Your task to perform on an android device: show emergency info Image 0: 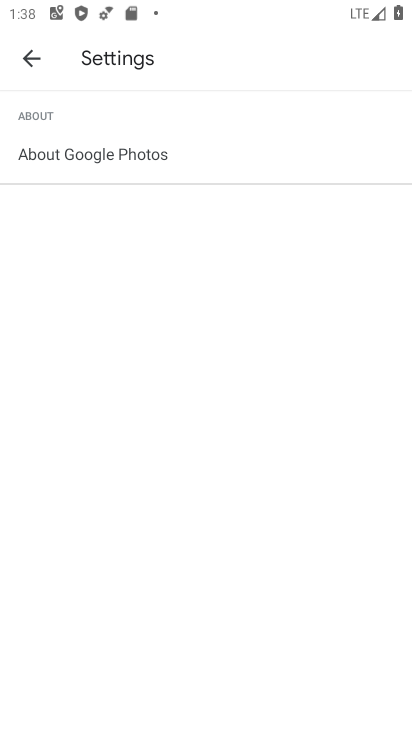
Step 0: press home button
Your task to perform on an android device: show emergency info Image 1: 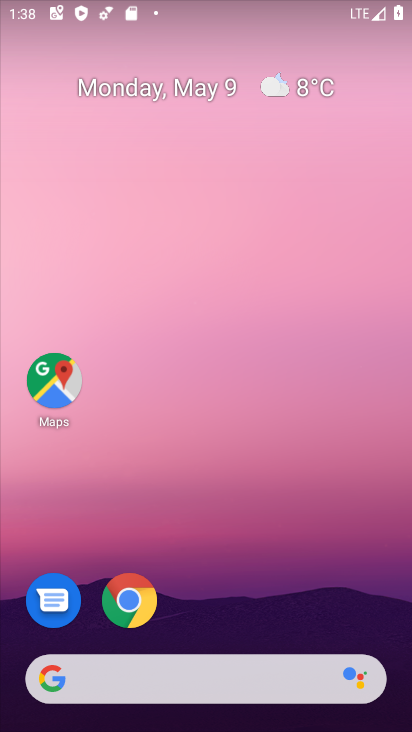
Step 1: drag from (188, 595) to (242, 149)
Your task to perform on an android device: show emergency info Image 2: 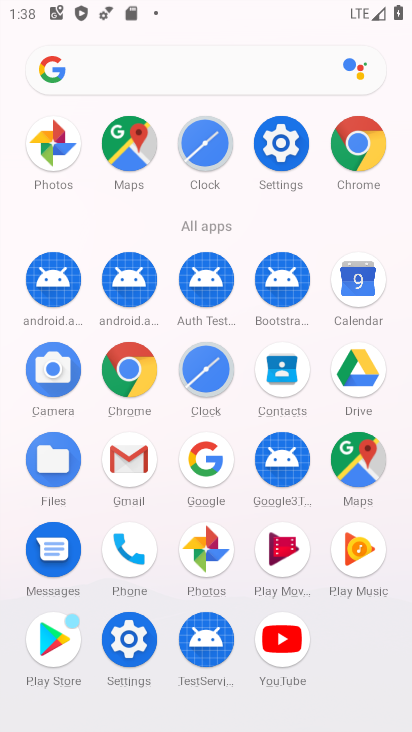
Step 2: click (135, 633)
Your task to perform on an android device: show emergency info Image 3: 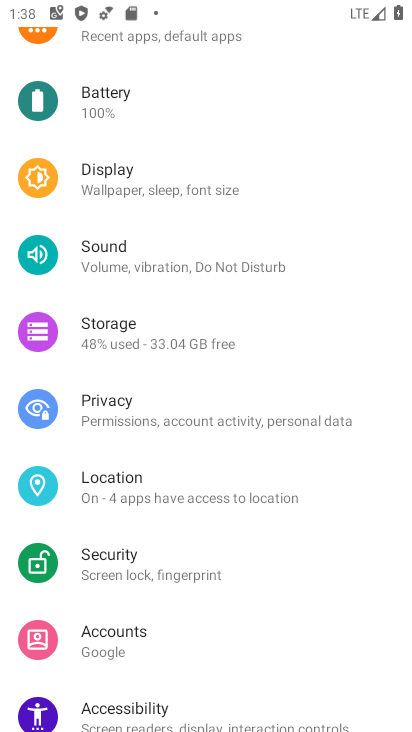
Step 3: drag from (157, 664) to (149, 280)
Your task to perform on an android device: show emergency info Image 4: 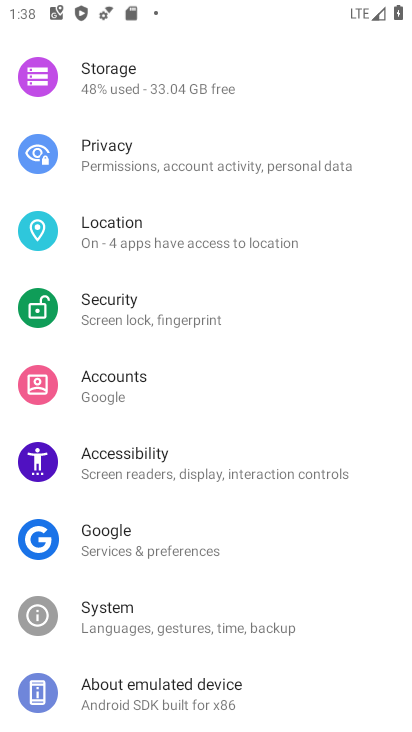
Step 4: click (152, 686)
Your task to perform on an android device: show emergency info Image 5: 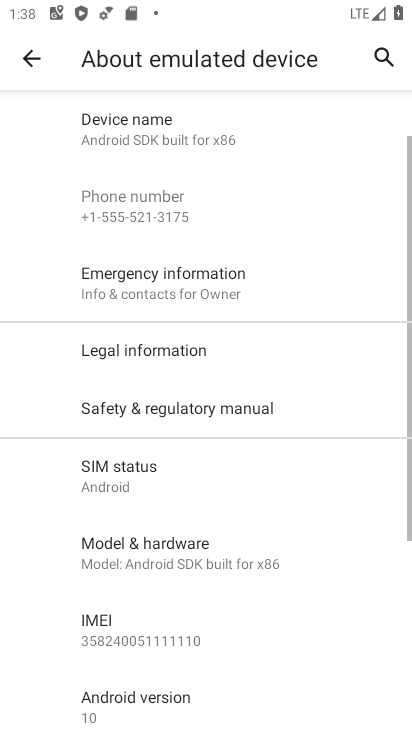
Step 5: click (178, 285)
Your task to perform on an android device: show emergency info Image 6: 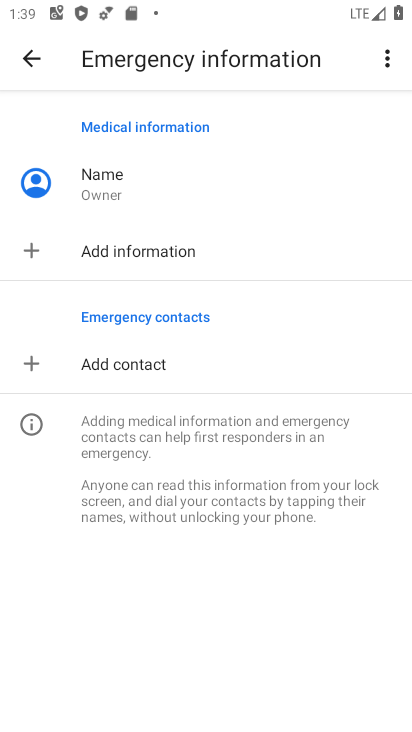
Step 6: task complete